Your task to perform on an android device: Toggle the flashlight Image 0: 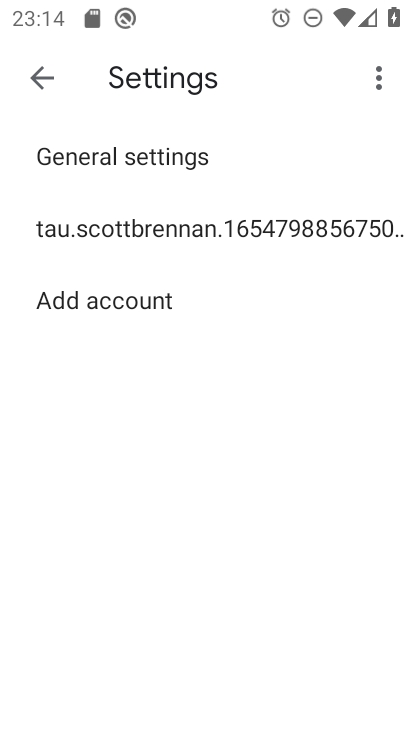
Step 0: press home button
Your task to perform on an android device: Toggle the flashlight Image 1: 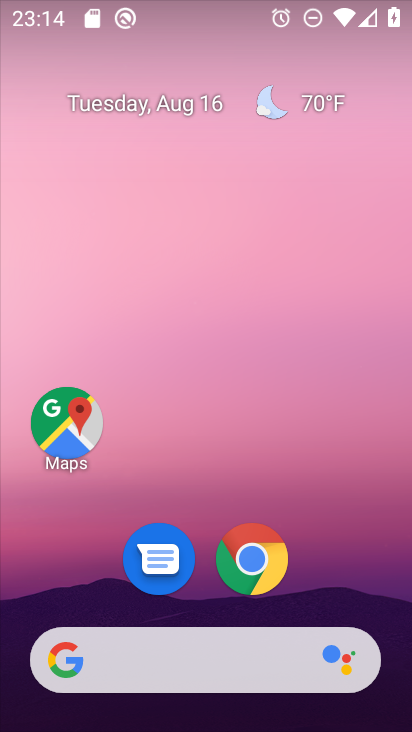
Step 1: drag from (174, 655) to (240, 101)
Your task to perform on an android device: Toggle the flashlight Image 2: 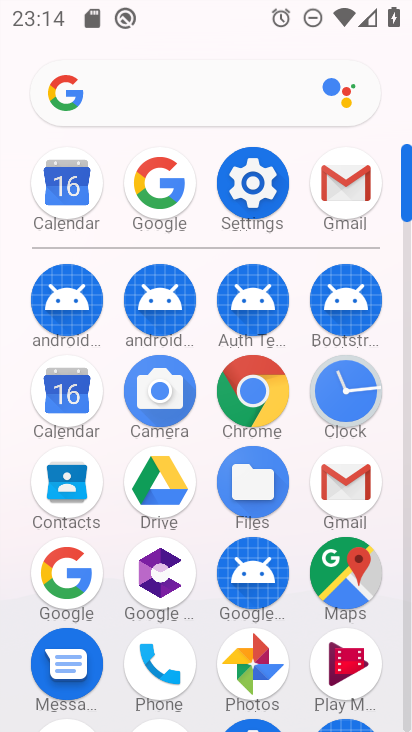
Step 2: click (258, 183)
Your task to perform on an android device: Toggle the flashlight Image 3: 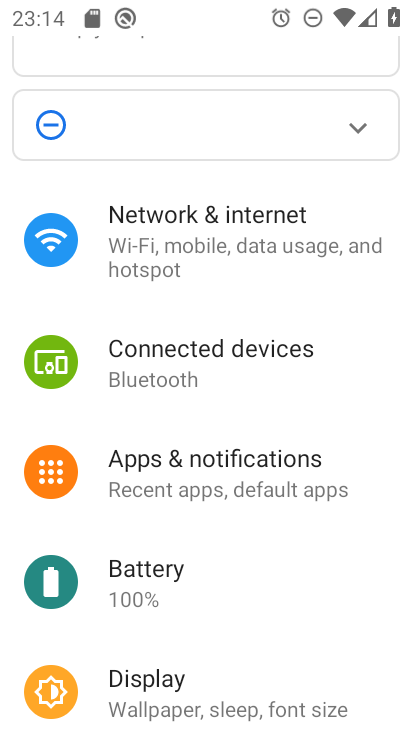
Step 3: drag from (155, 627) to (200, 270)
Your task to perform on an android device: Toggle the flashlight Image 4: 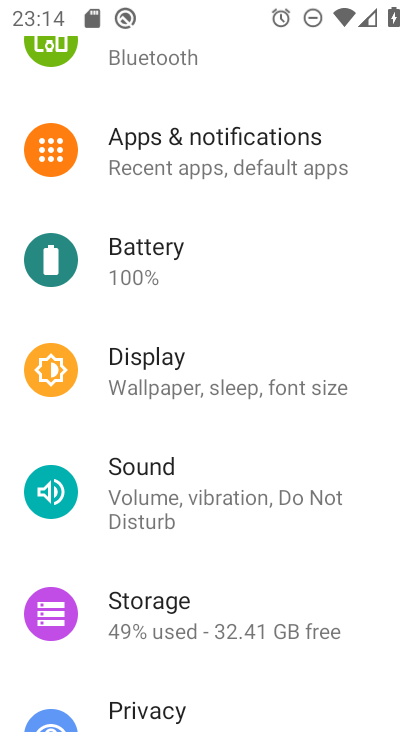
Step 4: drag from (166, 585) to (284, 431)
Your task to perform on an android device: Toggle the flashlight Image 5: 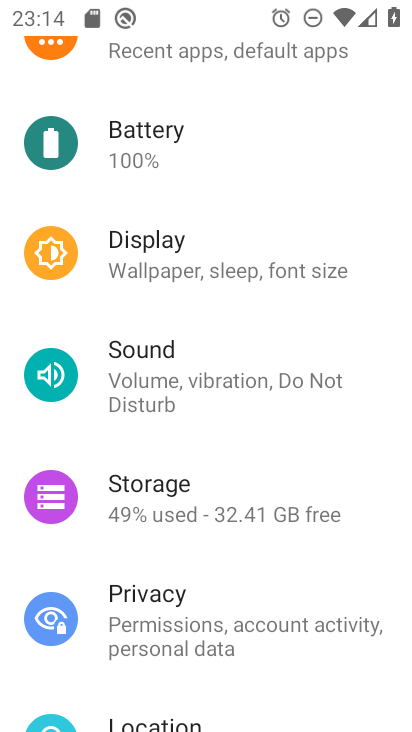
Step 5: drag from (214, 685) to (309, 461)
Your task to perform on an android device: Toggle the flashlight Image 6: 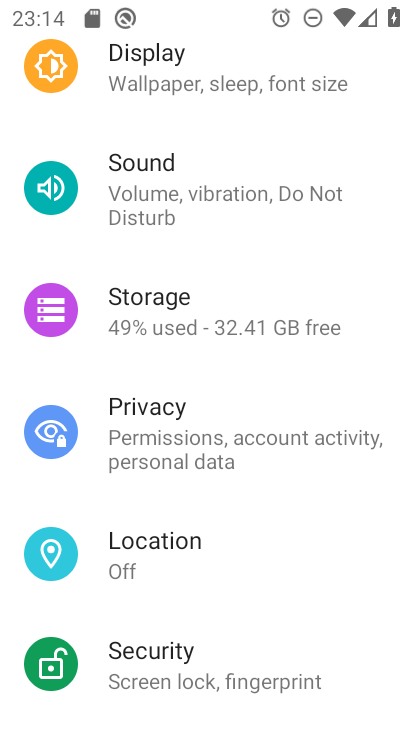
Step 6: drag from (198, 96) to (204, 430)
Your task to perform on an android device: Toggle the flashlight Image 7: 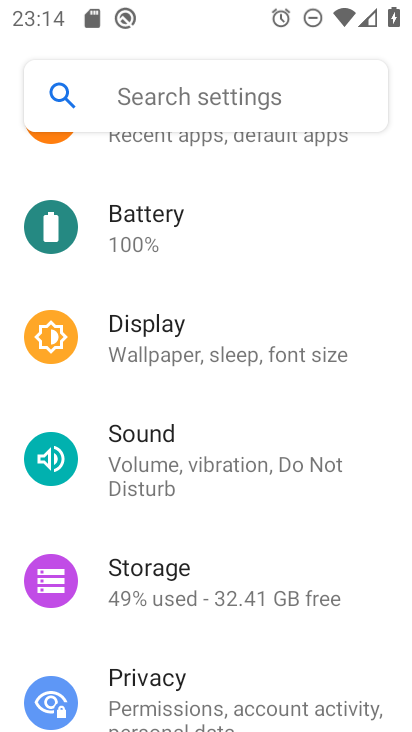
Step 7: click (228, 353)
Your task to perform on an android device: Toggle the flashlight Image 8: 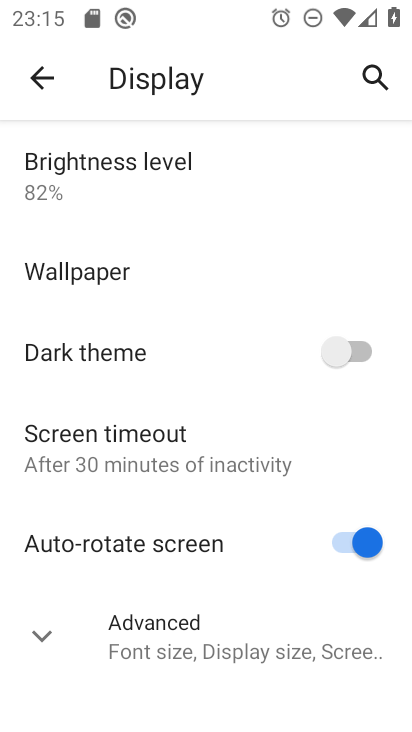
Step 8: task complete